Your task to perform on an android device: Turn off the flashlight Image 0: 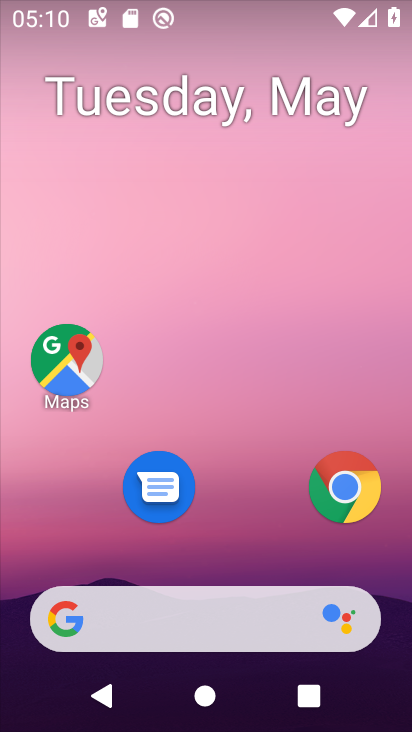
Step 0: drag from (273, 553) to (242, 145)
Your task to perform on an android device: Turn off the flashlight Image 1: 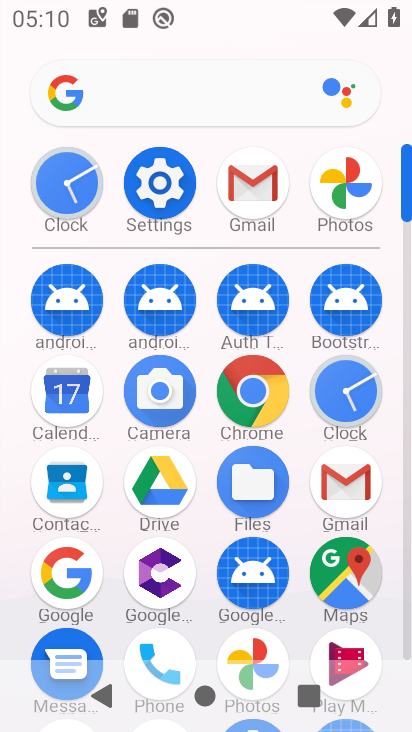
Step 1: click (170, 183)
Your task to perform on an android device: Turn off the flashlight Image 2: 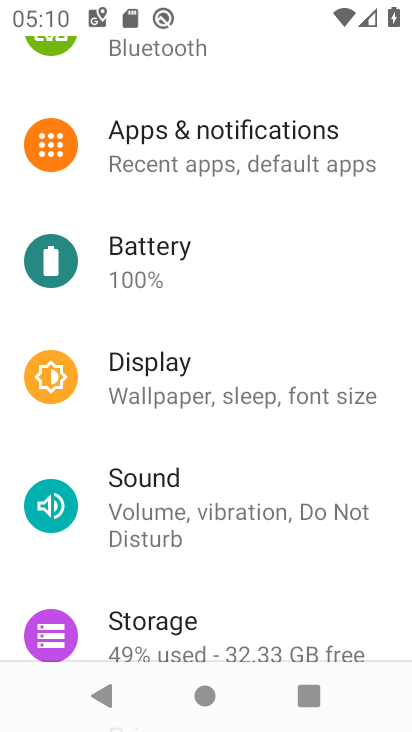
Step 2: click (185, 499)
Your task to perform on an android device: Turn off the flashlight Image 3: 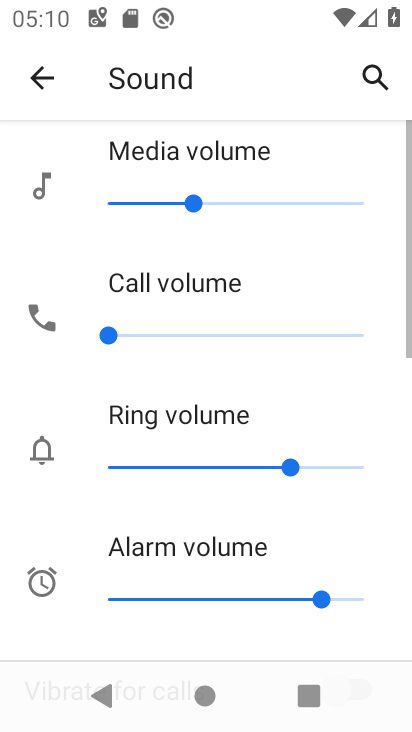
Step 3: task complete